Your task to perform on an android device: Open Google Chrome and open the bookmarks view Image 0: 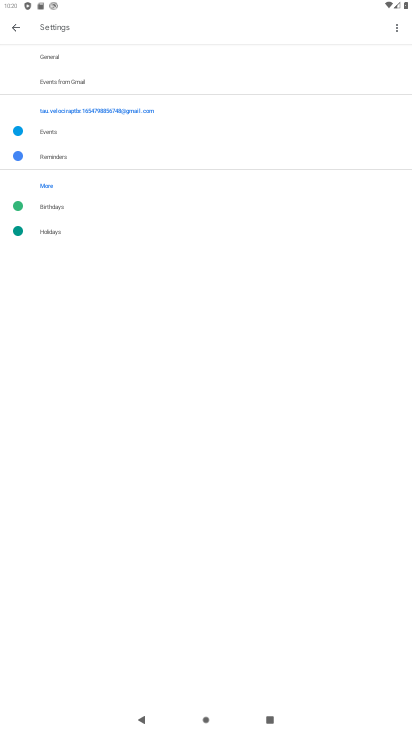
Step 0: press home button
Your task to perform on an android device: Open Google Chrome and open the bookmarks view Image 1: 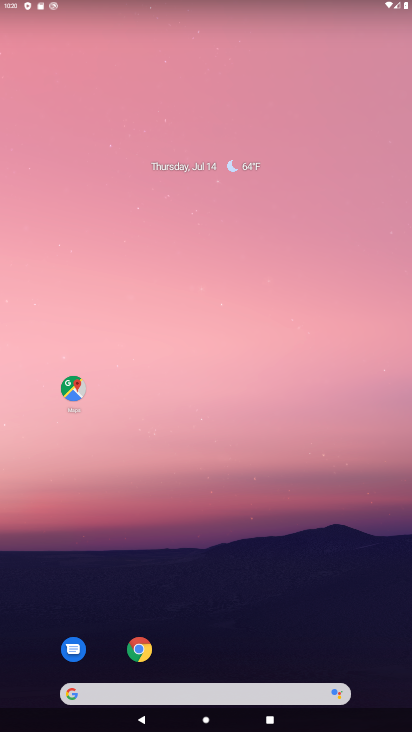
Step 1: click (139, 660)
Your task to perform on an android device: Open Google Chrome and open the bookmarks view Image 2: 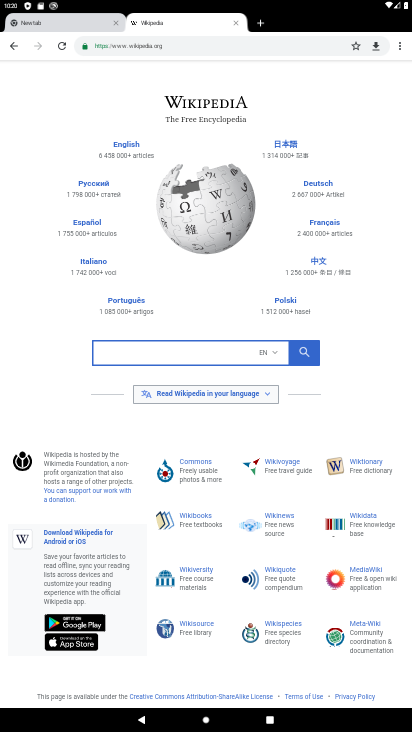
Step 2: task complete